Your task to perform on an android device: move a message to another label in the gmail app Image 0: 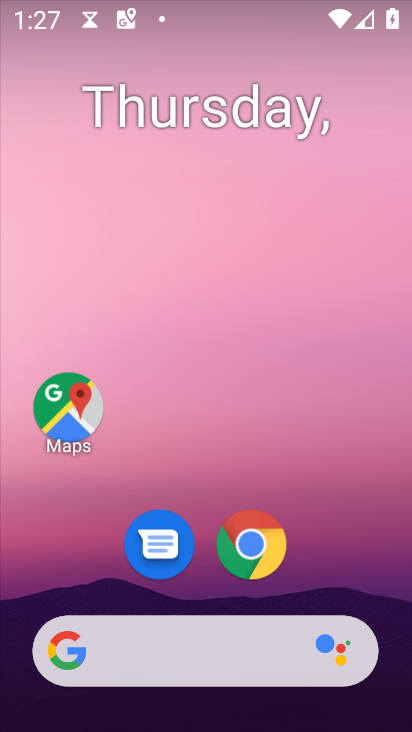
Step 0: drag from (240, 714) to (247, 3)
Your task to perform on an android device: move a message to another label in the gmail app Image 1: 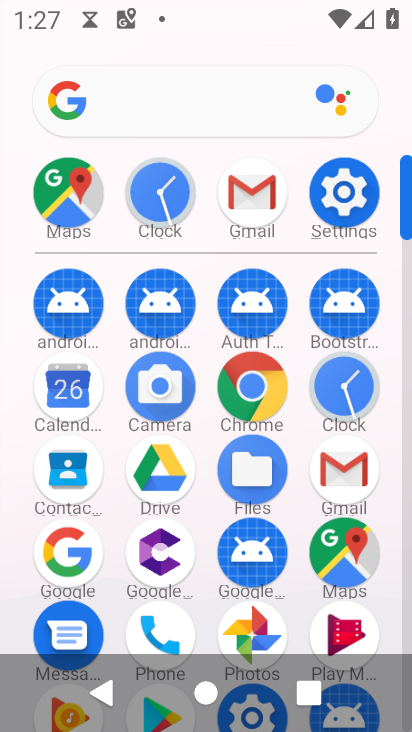
Step 1: click (349, 463)
Your task to perform on an android device: move a message to another label in the gmail app Image 2: 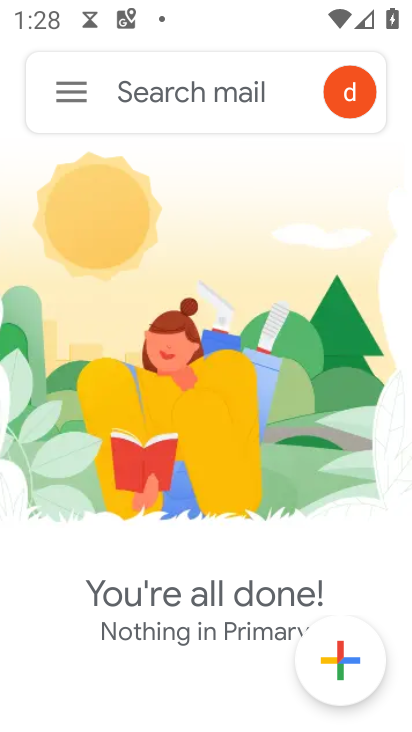
Step 2: task complete